Your task to perform on an android device: Open the calendar and show me this week's events? Image 0: 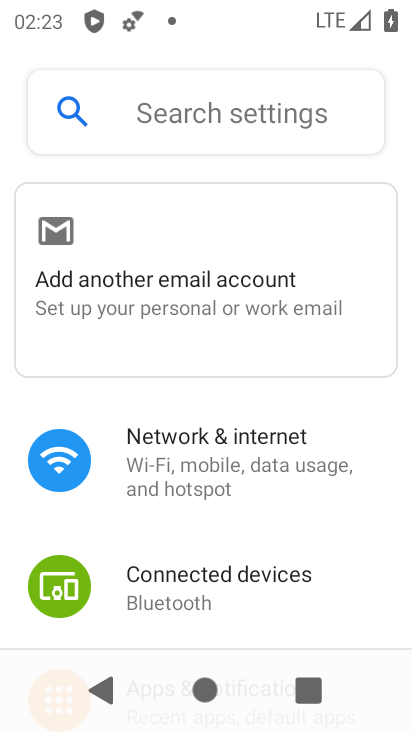
Step 0: drag from (220, 601) to (275, 129)
Your task to perform on an android device: Open the calendar and show me this week's events? Image 1: 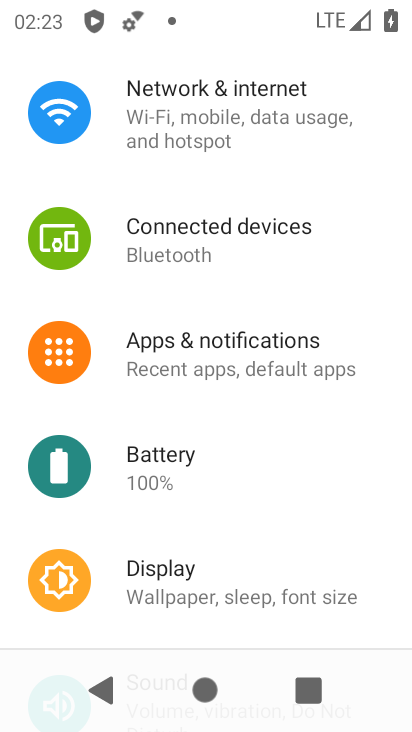
Step 1: press home button
Your task to perform on an android device: Open the calendar and show me this week's events? Image 2: 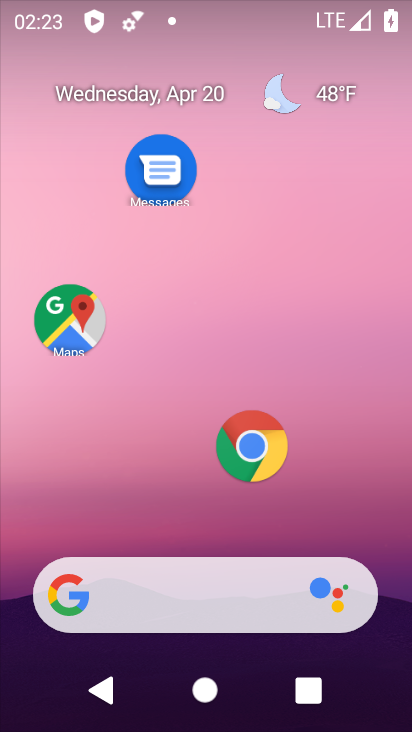
Step 2: drag from (190, 506) to (244, 45)
Your task to perform on an android device: Open the calendar and show me this week's events? Image 3: 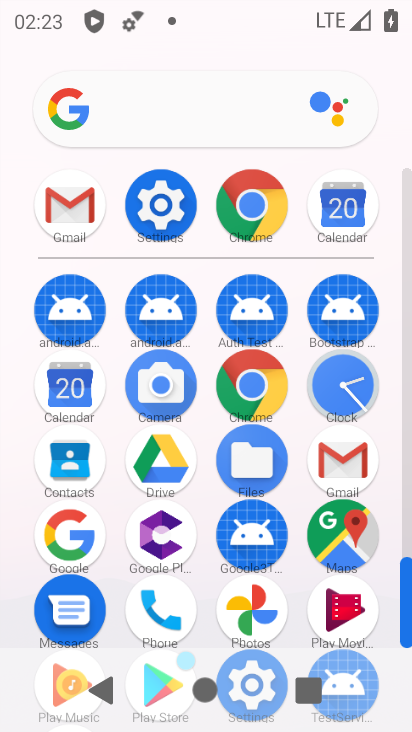
Step 3: click (71, 386)
Your task to perform on an android device: Open the calendar and show me this week's events? Image 4: 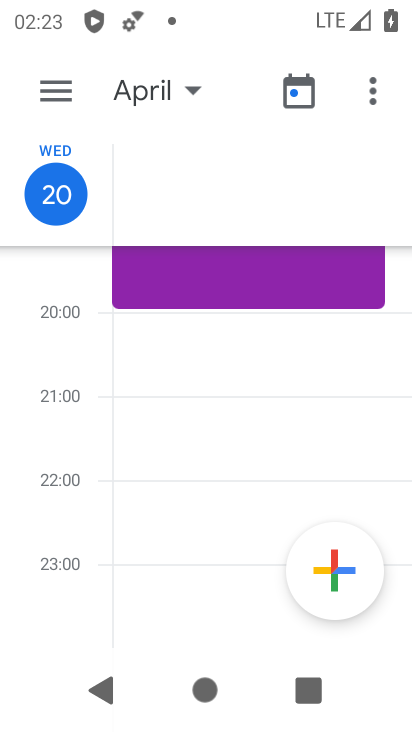
Step 4: click (54, 75)
Your task to perform on an android device: Open the calendar and show me this week's events? Image 5: 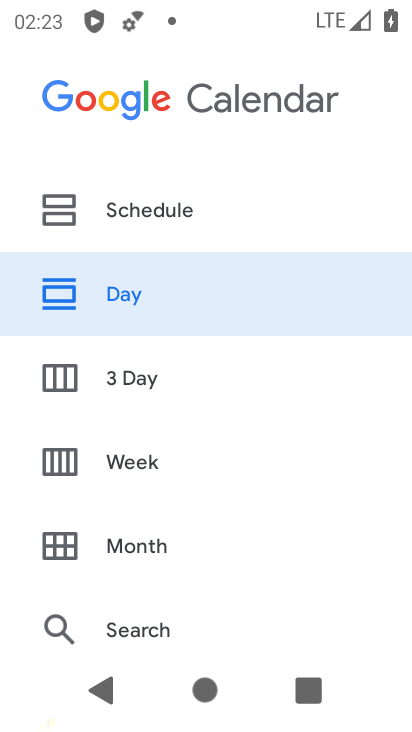
Step 5: drag from (173, 590) to (218, 245)
Your task to perform on an android device: Open the calendar and show me this week's events? Image 6: 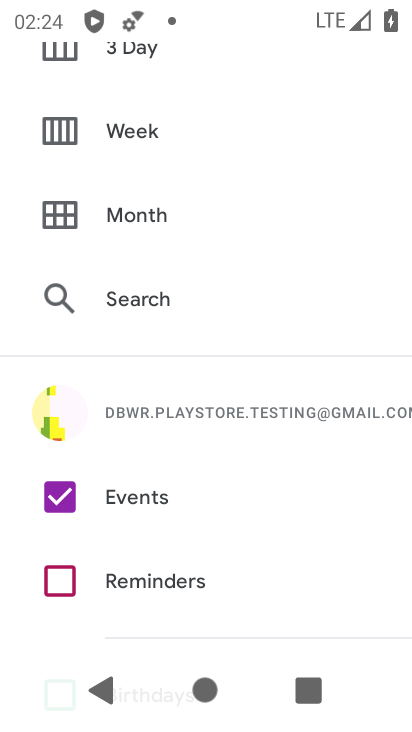
Step 6: click (81, 117)
Your task to perform on an android device: Open the calendar and show me this week's events? Image 7: 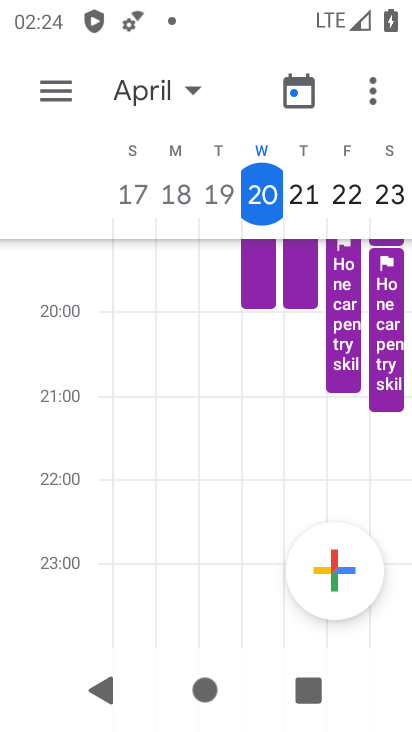
Step 7: drag from (400, 196) to (43, 206)
Your task to perform on an android device: Open the calendar and show me this week's events? Image 8: 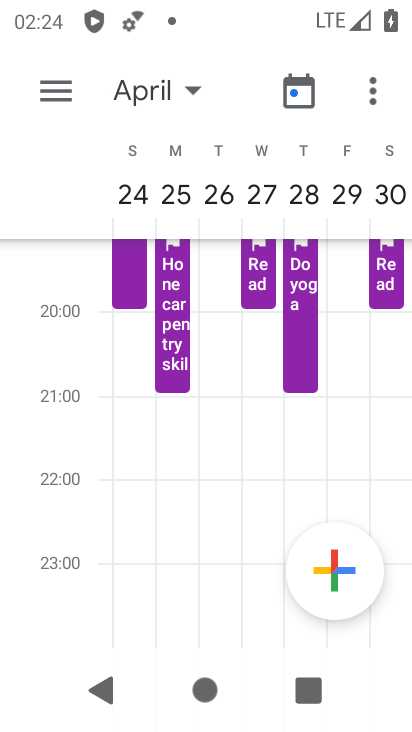
Step 8: drag from (161, 199) to (409, 199)
Your task to perform on an android device: Open the calendar and show me this week's events? Image 9: 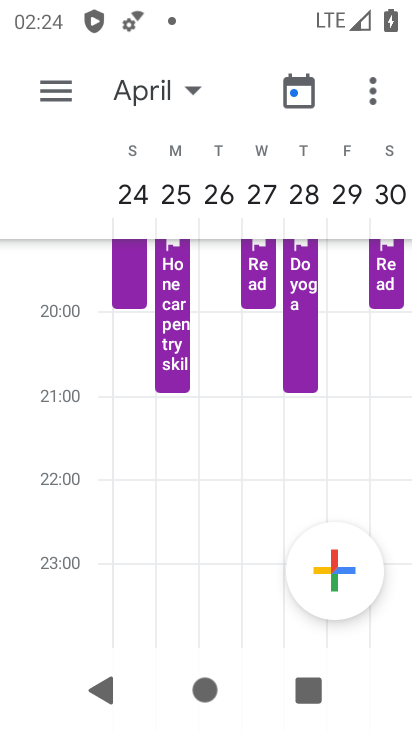
Step 9: click (130, 192)
Your task to perform on an android device: Open the calendar and show me this week's events? Image 10: 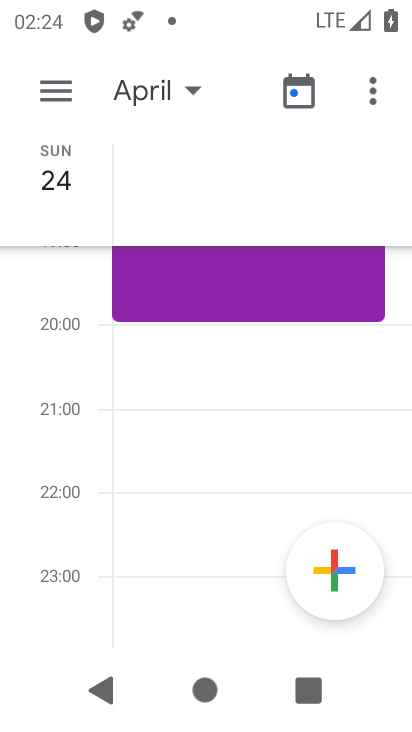
Step 10: drag from (32, 547) to (108, 157)
Your task to perform on an android device: Open the calendar and show me this week's events? Image 11: 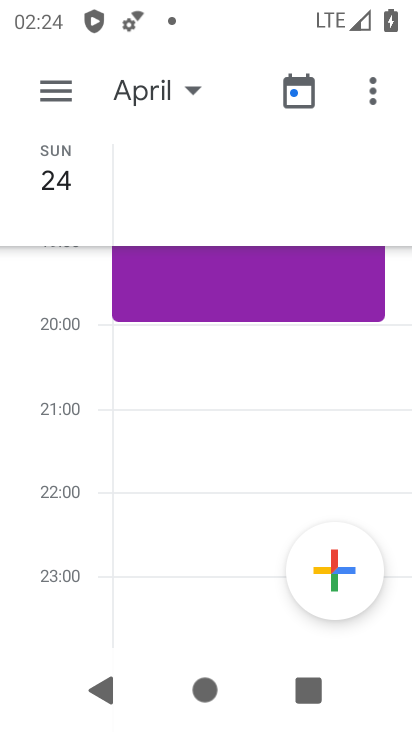
Step 11: click (60, 90)
Your task to perform on an android device: Open the calendar and show me this week's events? Image 12: 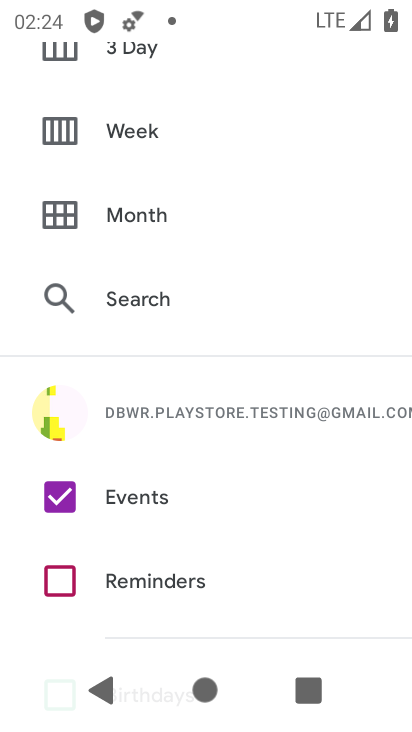
Step 12: click (85, 131)
Your task to perform on an android device: Open the calendar and show me this week's events? Image 13: 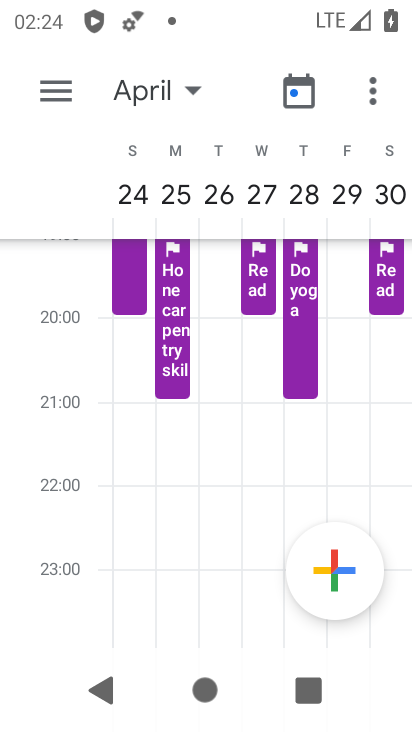
Step 13: drag from (124, 188) to (410, 233)
Your task to perform on an android device: Open the calendar and show me this week's events? Image 14: 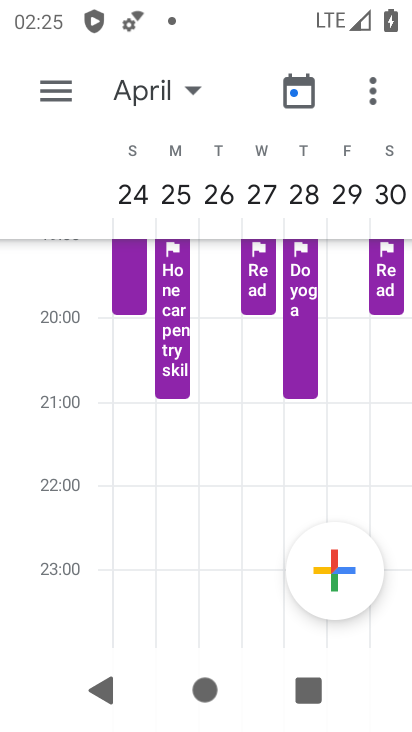
Step 14: drag from (130, 192) to (398, 201)
Your task to perform on an android device: Open the calendar and show me this week's events? Image 15: 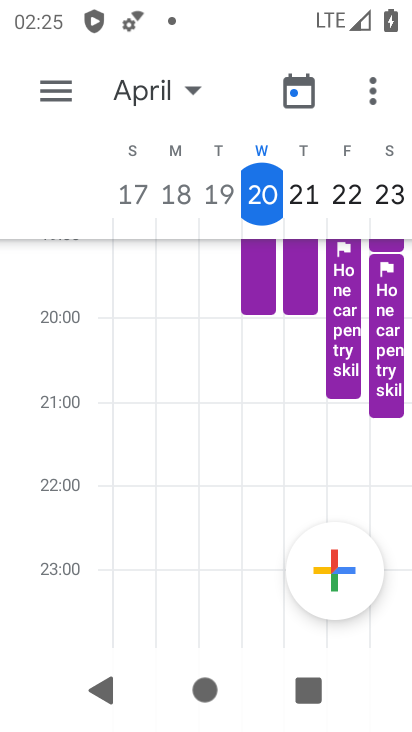
Step 15: click (134, 192)
Your task to perform on an android device: Open the calendar and show me this week's events? Image 16: 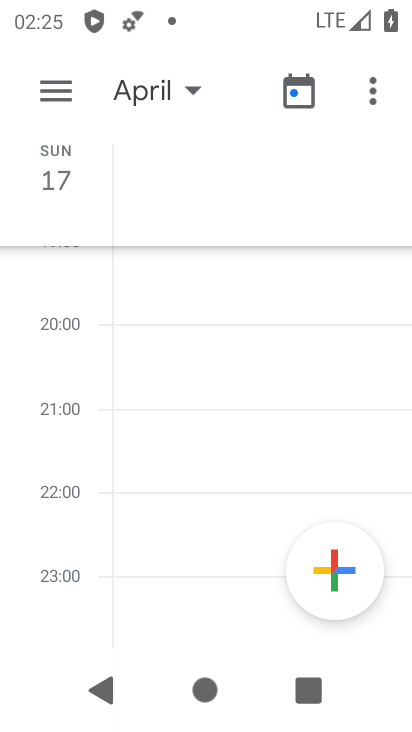
Step 16: click (84, 195)
Your task to perform on an android device: Open the calendar and show me this week's events? Image 17: 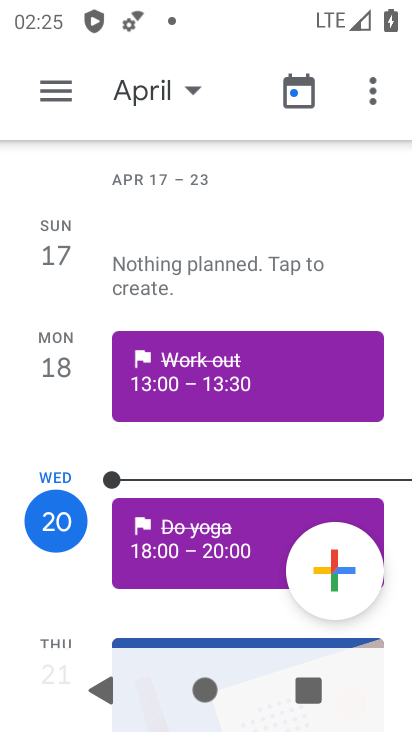
Step 17: task complete